Your task to perform on an android device: Show me popular videos on Youtube Image 0: 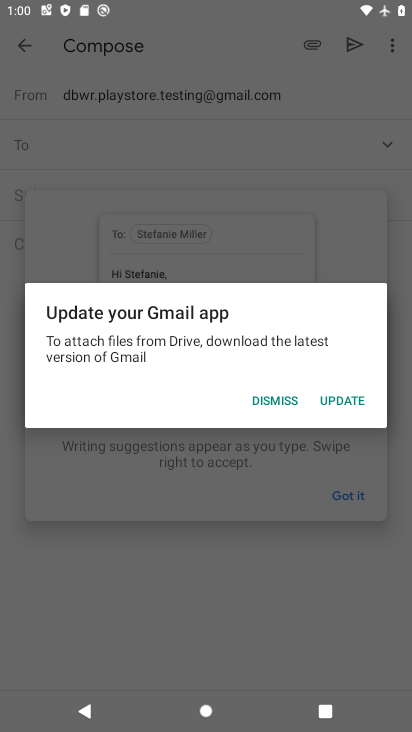
Step 0: press home button
Your task to perform on an android device: Show me popular videos on Youtube Image 1: 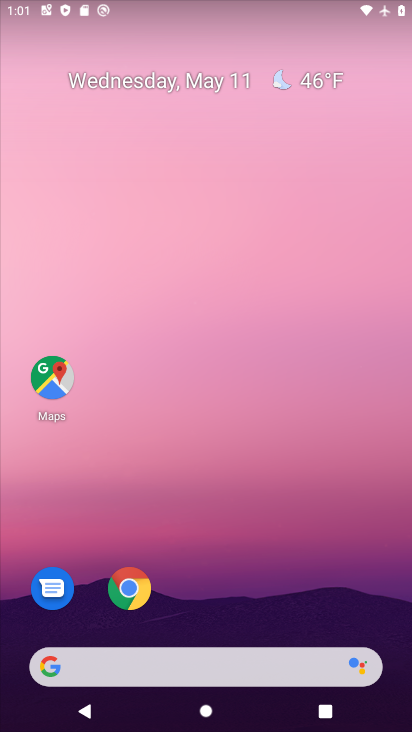
Step 1: drag from (251, 557) to (350, 48)
Your task to perform on an android device: Show me popular videos on Youtube Image 2: 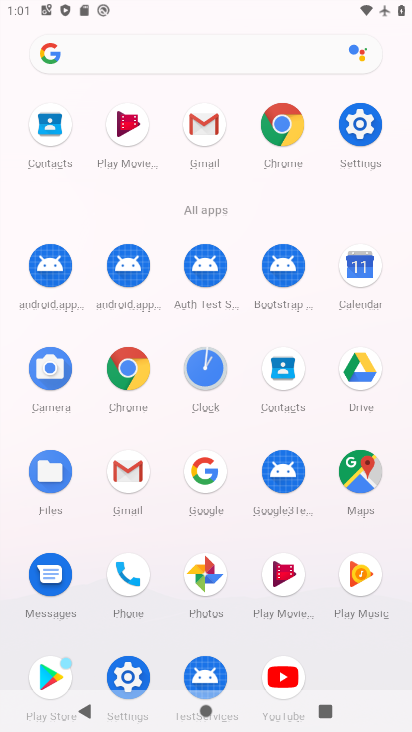
Step 2: click (284, 665)
Your task to perform on an android device: Show me popular videos on Youtube Image 3: 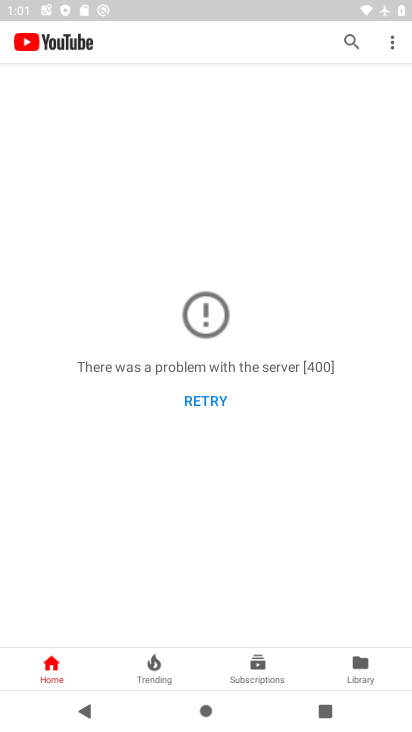
Step 3: click (150, 674)
Your task to perform on an android device: Show me popular videos on Youtube Image 4: 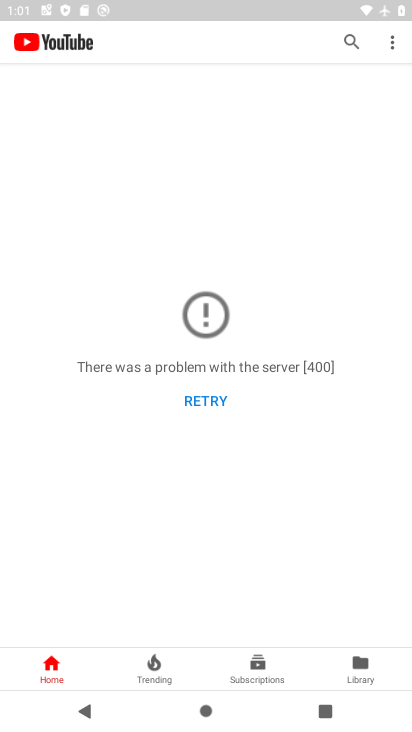
Step 4: click (153, 678)
Your task to perform on an android device: Show me popular videos on Youtube Image 5: 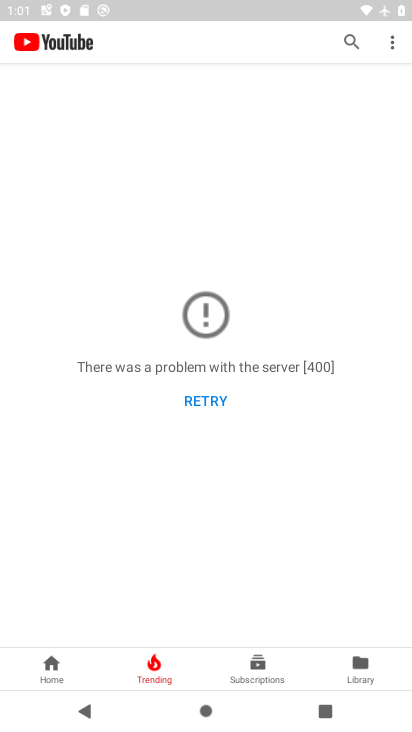
Step 5: task complete